Your task to perform on an android device: visit the assistant section in the google photos Image 0: 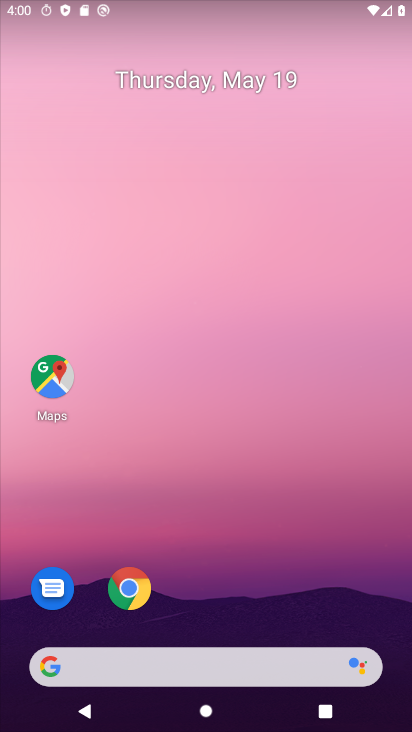
Step 0: drag from (182, 608) to (218, 163)
Your task to perform on an android device: visit the assistant section in the google photos Image 1: 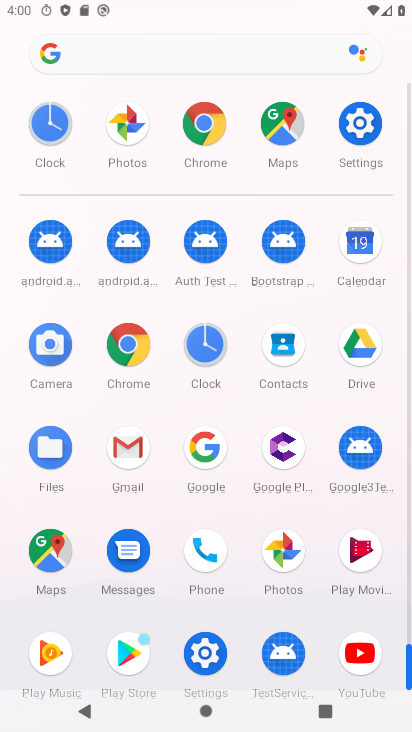
Step 1: click (283, 568)
Your task to perform on an android device: visit the assistant section in the google photos Image 2: 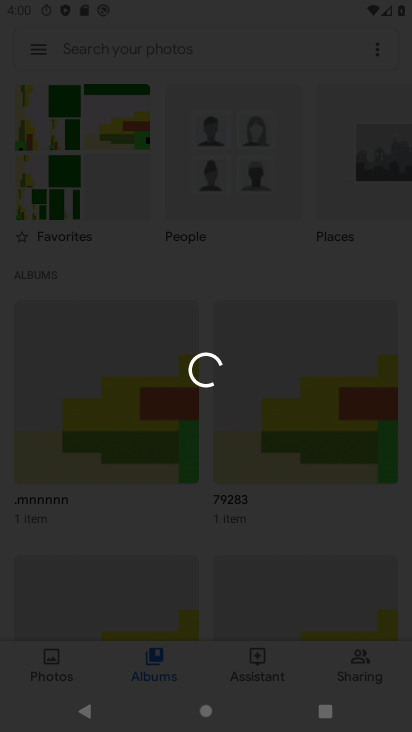
Step 2: click (167, 565)
Your task to perform on an android device: visit the assistant section in the google photos Image 3: 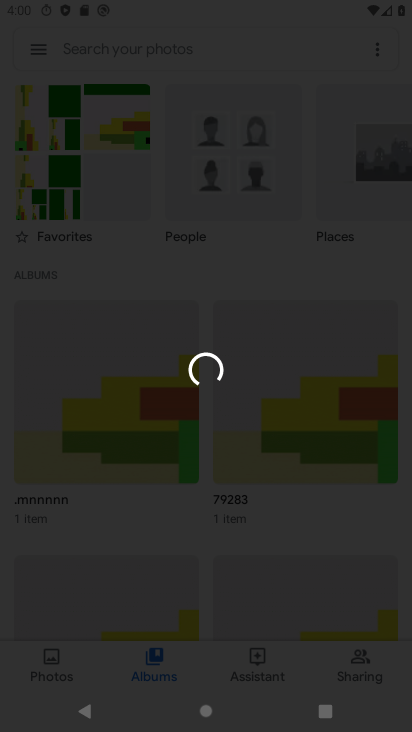
Step 3: press back button
Your task to perform on an android device: visit the assistant section in the google photos Image 4: 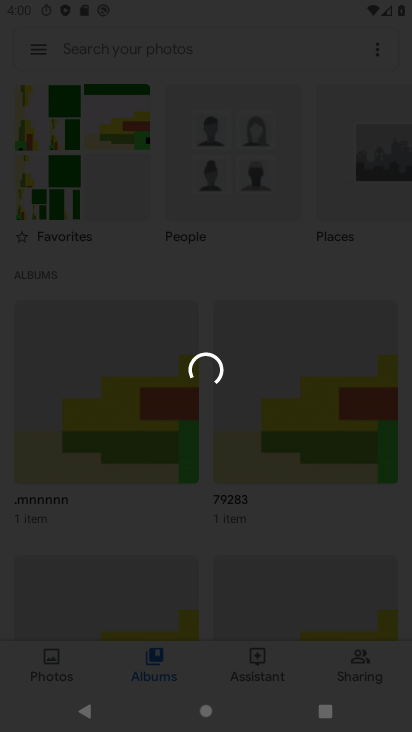
Step 4: press back button
Your task to perform on an android device: visit the assistant section in the google photos Image 5: 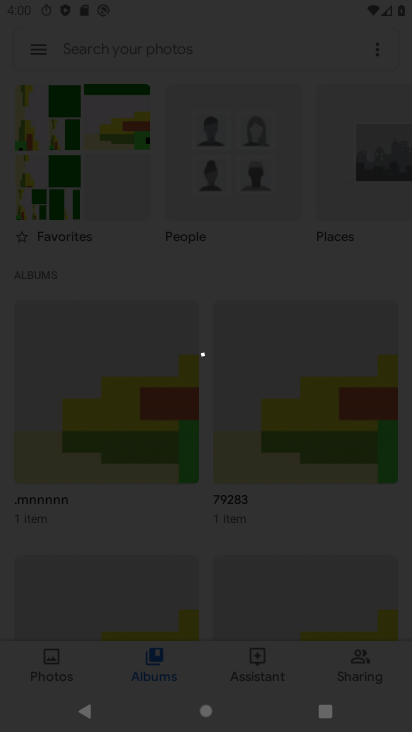
Step 5: click (177, 477)
Your task to perform on an android device: visit the assistant section in the google photos Image 6: 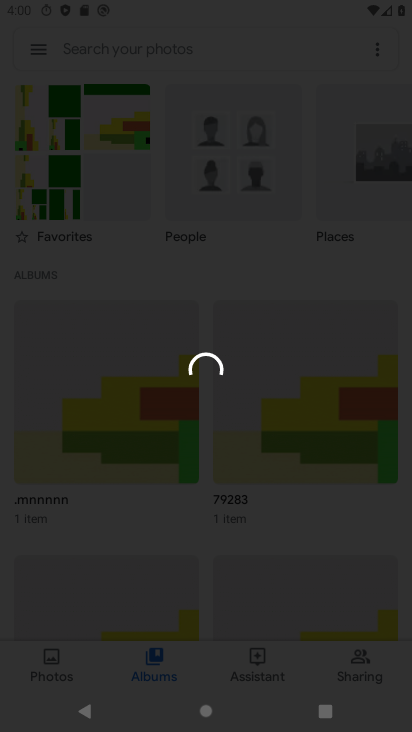
Step 6: click (179, 476)
Your task to perform on an android device: visit the assistant section in the google photos Image 7: 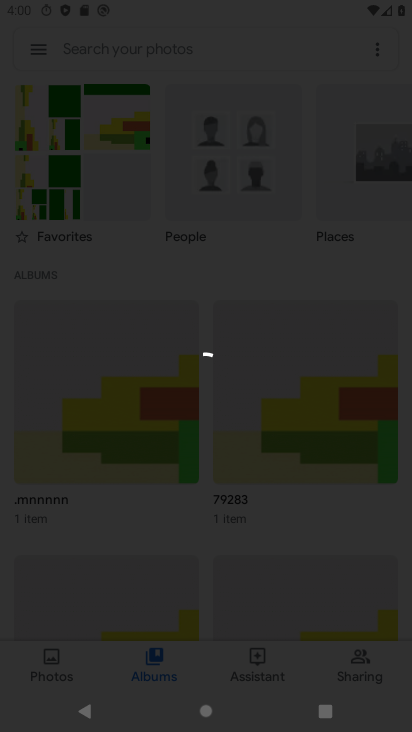
Step 7: click (341, 54)
Your task to perform on an android device: visit the assistant section in the google photos Image 8: 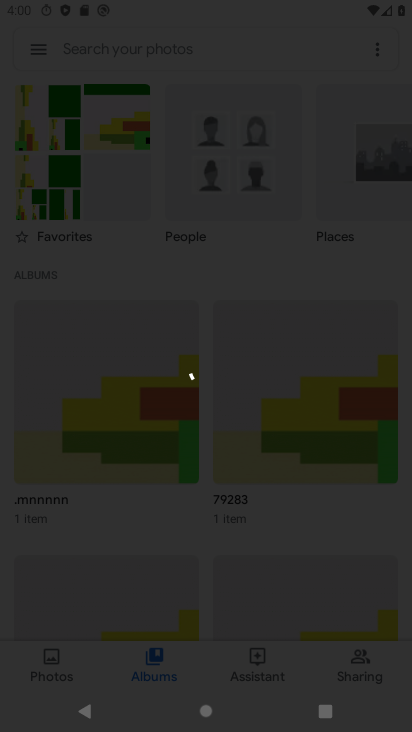
Step 8: click (269, 680)
Your task to perform on an android device: visit the assistant section in the google photos Image 9: 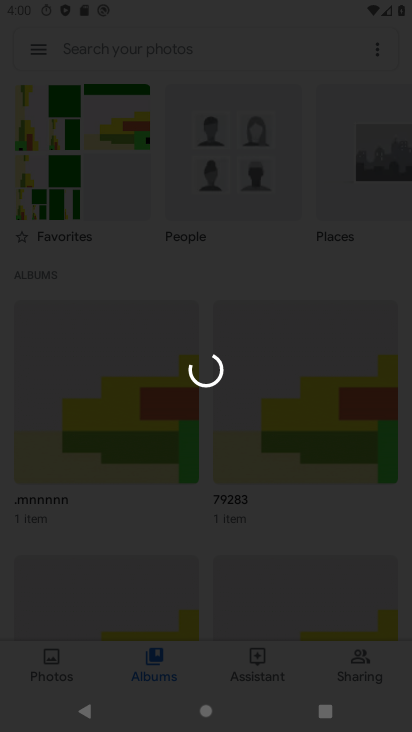
Step 9: click (392, 665)
Your task to perform on an android device: visit the assistant section in the google photos Image 10: 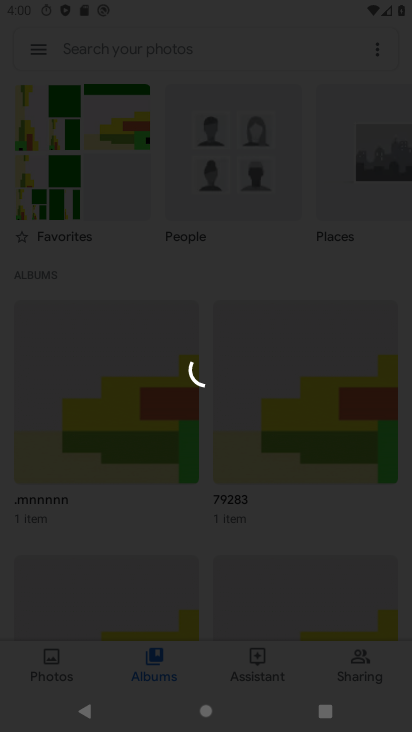
Step 10: click (49, 660)
Your task to perform on an android device: visit the assistant section in the google photos Image 11: 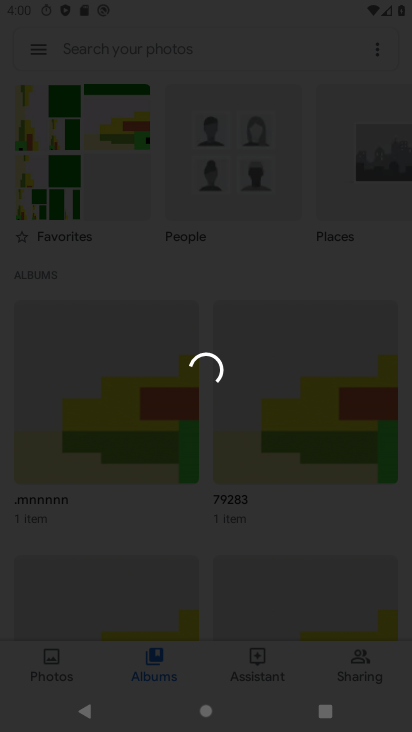
Step 11: press back button
Your task to perform on an android device: visit the assistant section in the google photos Image 12: 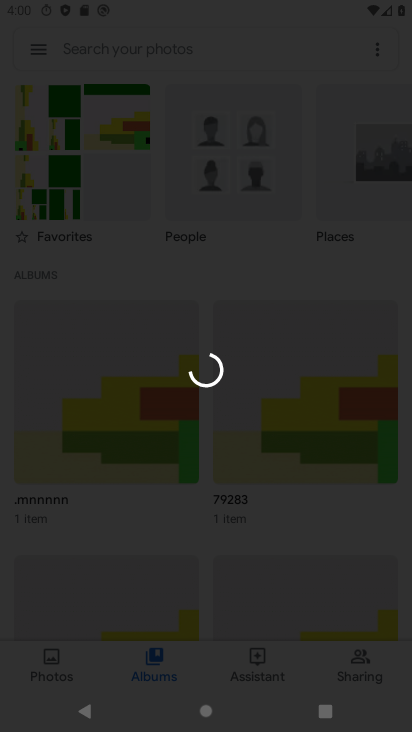
Step 12: click (165, 473)
Your task to perform on an android device: visit the assistant section in the google photos Image 13: 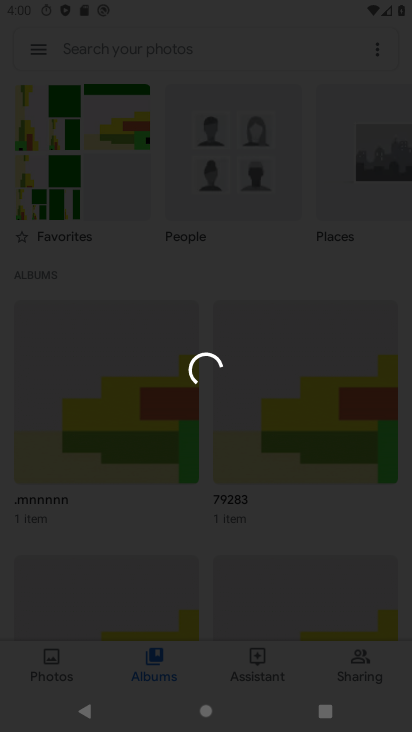
Step 13: click (159, 478)
Your task to perform on an android device: visit the assistant section in the google photos Image 14: 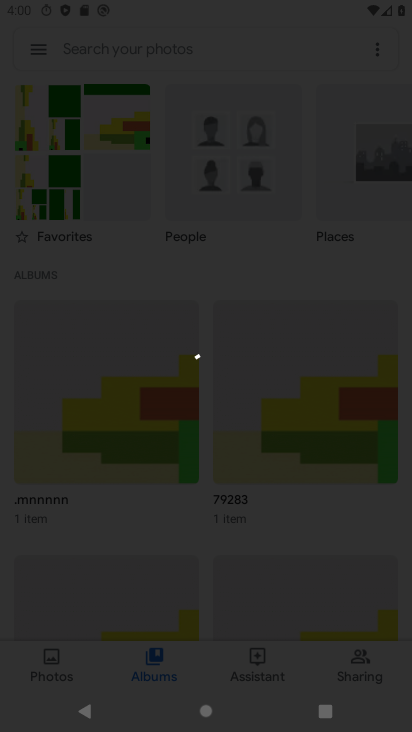
Step 14: click (159, 478)
Your task to perform on an android device: visit the assistant section in the google photos Image 15: 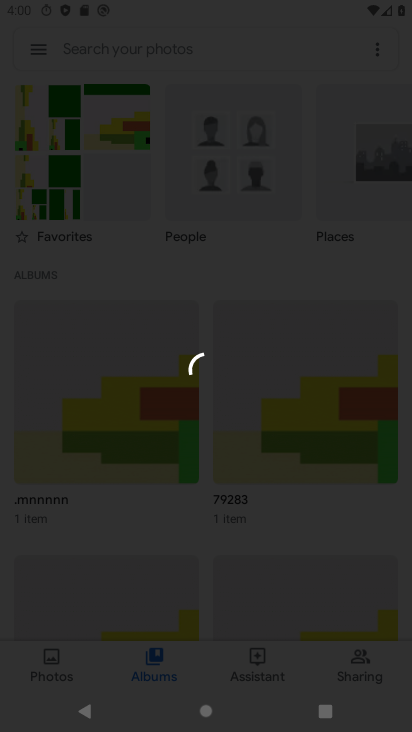
Step 15: press back button
Your task to perform on an android device: visit the assistant section in the google photos Image 16: 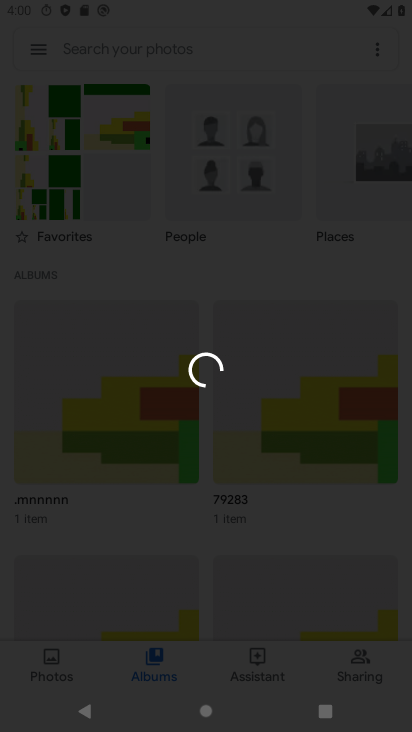
Step 16: press home button
Your task to perform on an android device: visit the assistant section in the google photos Image 17: 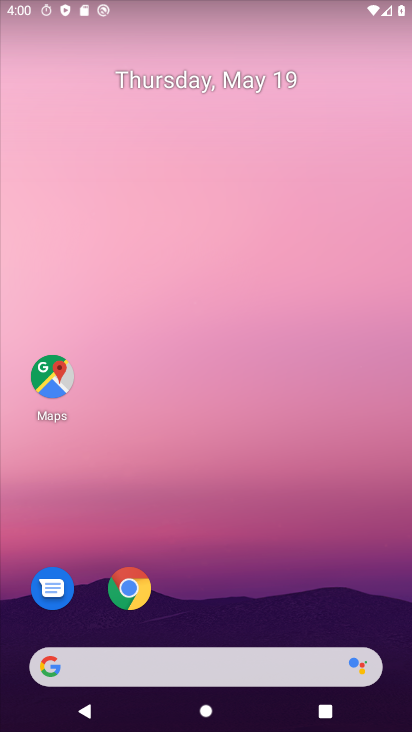
Step 17: drag from (229, 610) to (244, 135)
Your task to perform on an android device: visit the assistant section in the google photos Image 18: 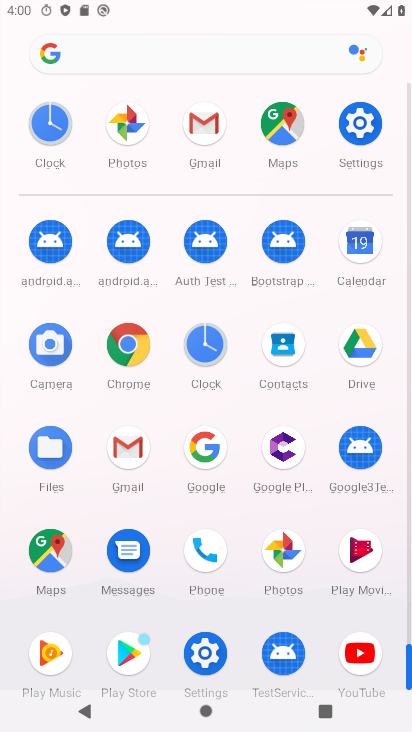
Step 18: click (285, 576)
Your task to perform on an android device: visit the assistant section in the google photos Image 19: 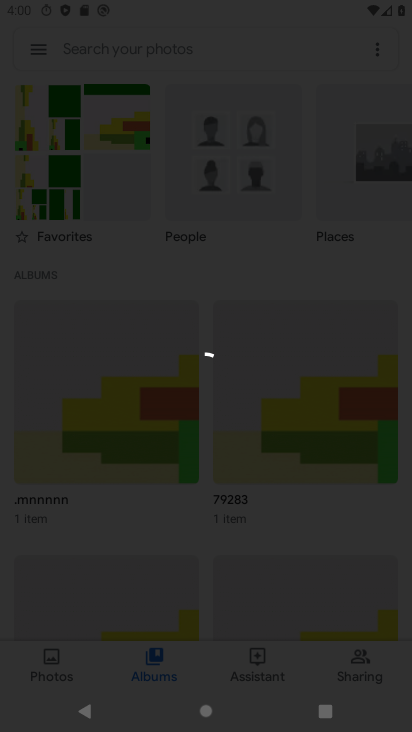
Step 19: task complete